Your task to perform on an android device: Go to Wikipedia Image 0: 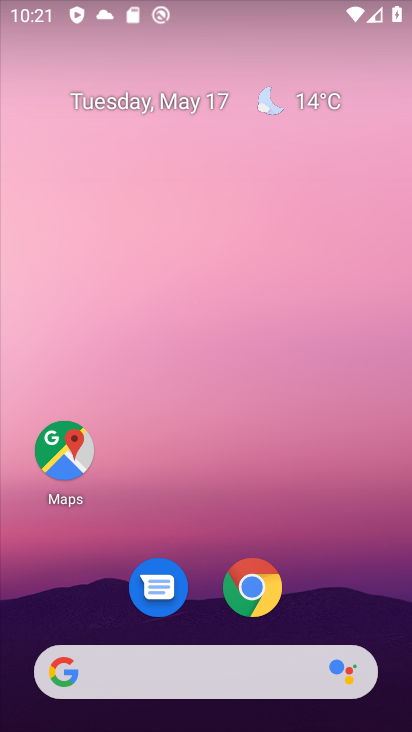
Step 0: click (254, 590)
Your task to perform on an android device: Go to Wikipedia Image 1: 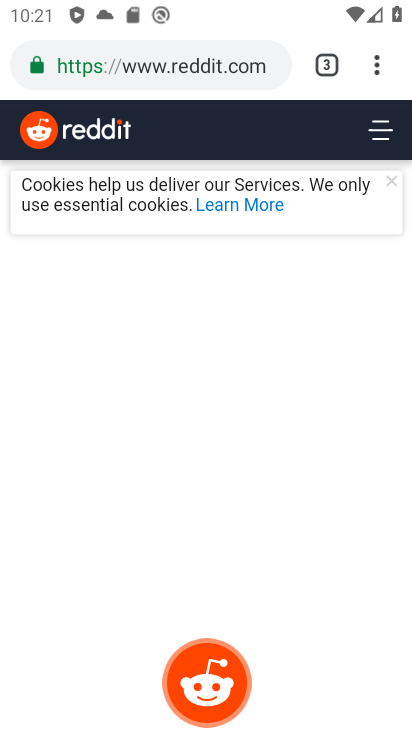
Step 1: click (327, 64)
Your task to perform on an android device: Go to Wikipedia Image 2: 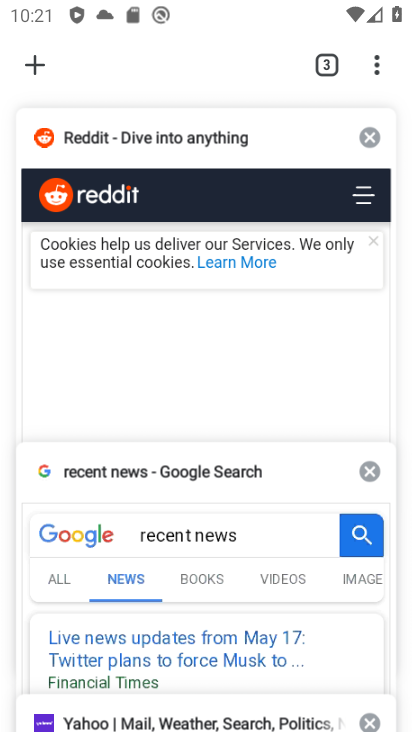
Step 2: click (35, 54)
Your task to perform on an android device: Go to Wikipedia Image 3: 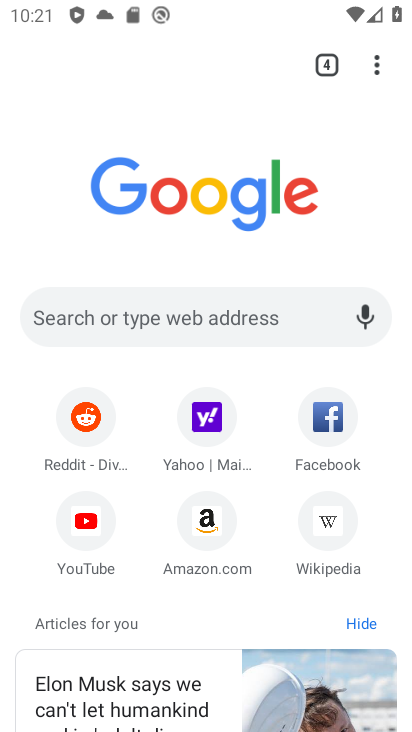
Step 3: click (328, 511)
Your task to perform on an android device: Go to Wikipedia Image 4: 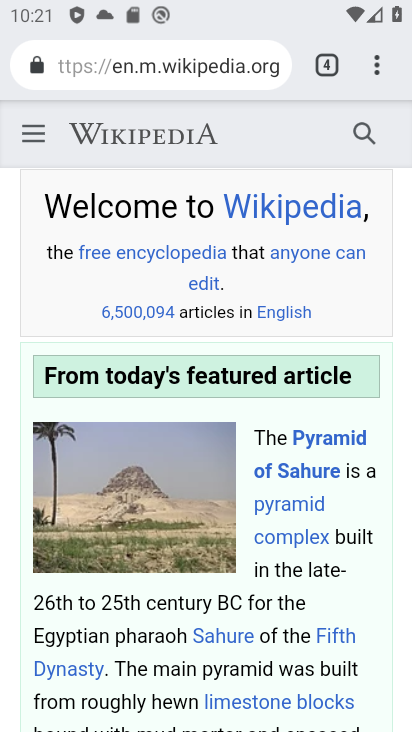
Step 4: task complete